Your task to perform on an android device: Go to CNN.com Image 0: 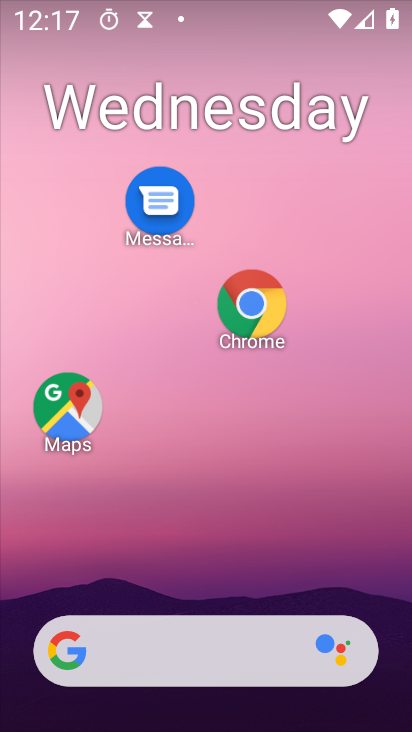
Step 0: drag from (295, 430) to (303, 209)
Your task to perform on an android device: Go to CNN.com Image 1: 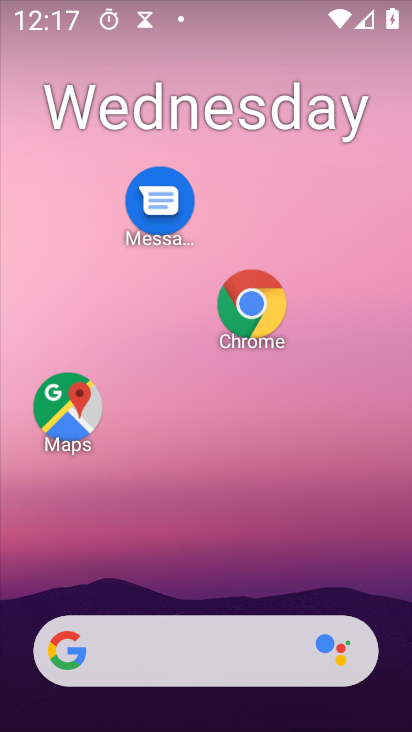
Step 1: drag from (327, 559) to (370, 160)
Your task to perform on an android device: Go to CNN.com Image 2: 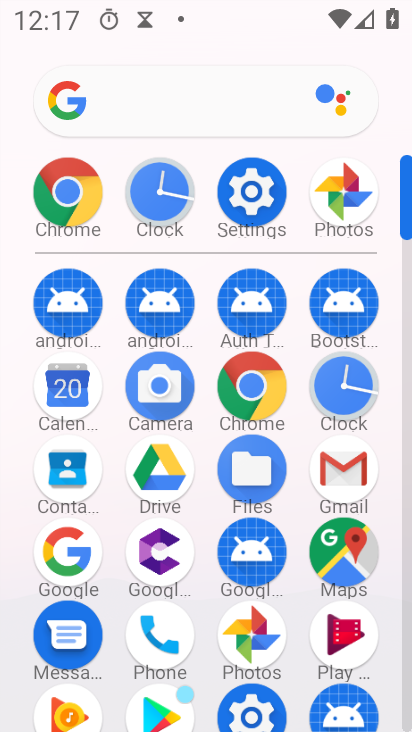
Step 2: click (255, 376)
Your task to perform on an android device: Go to CNN.com Image 3: 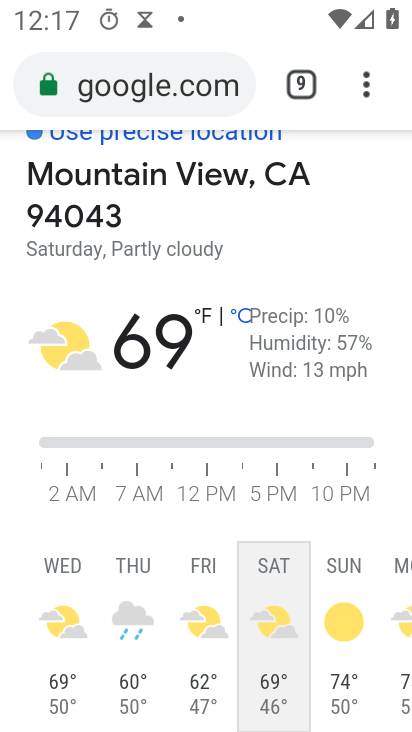
Step 3: click (352, 80)
Your task to perform on an android device: Go to CNN.com Image 4: 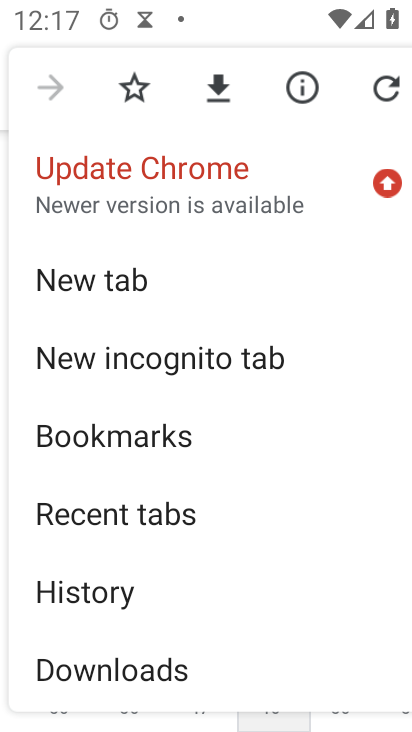
Step 4: click (148, 280)
Your task to perform on an android device: Go to CNN.com Image 5: 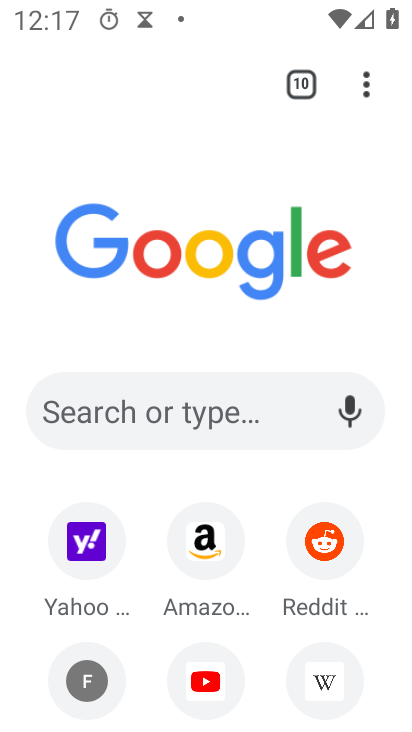
Step 5: click (141, 401)
Your task to perform on an android device: Go to CNN.com Image 6: 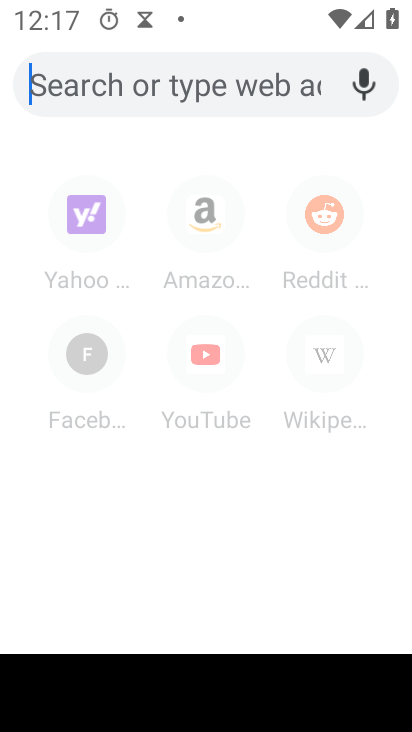
Step 6: click (281, 76)
Your task to perform on an android device: Go to CNN.com Image 7: 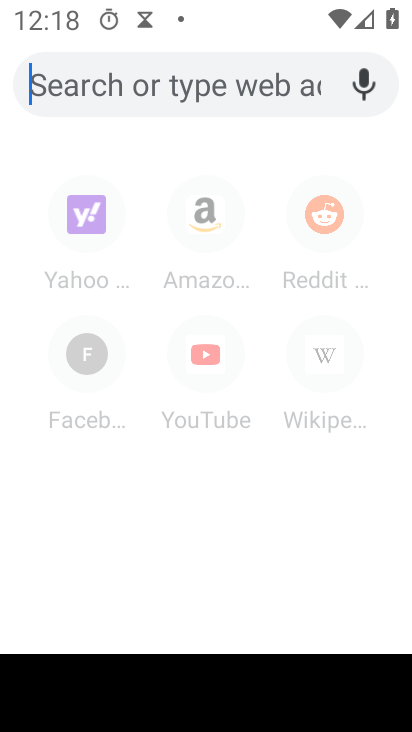
Step 7: type " CNN.com"
Your task to perform on an android device: Go to CNN.com Image 8: 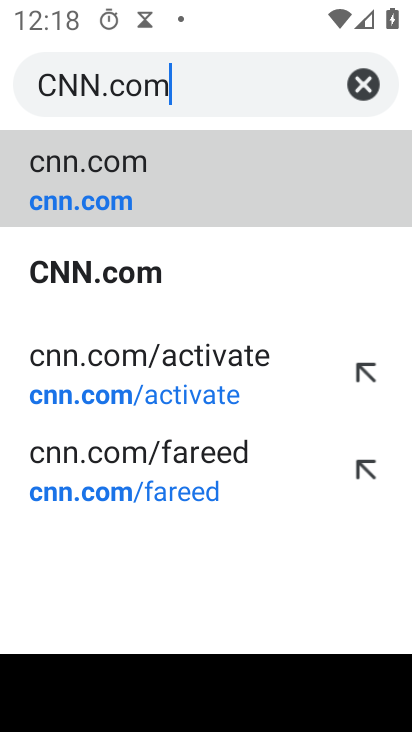
Step 8: click (154, 270)
Your task to perform on an android device: Go to CNN.com Image 9: 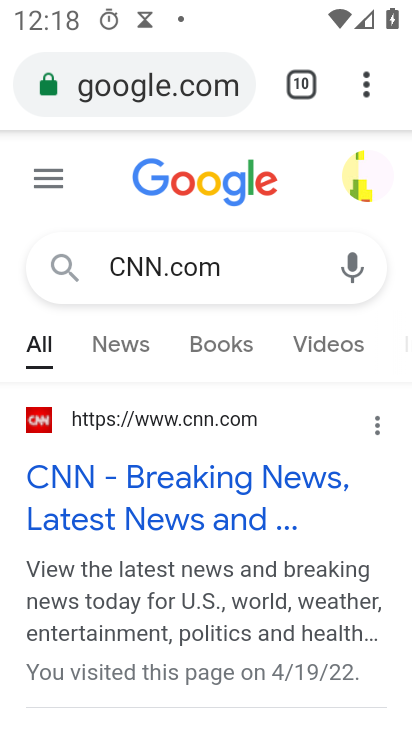
Step 9: task complete